Your task to perform on an android device: Open battery settings Image 0: 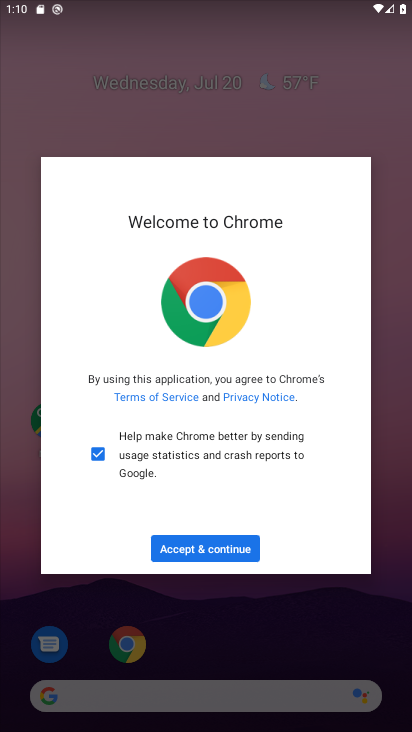
Step 0: press home button
Your task to perform on an android device: Open battery settings Image 1: 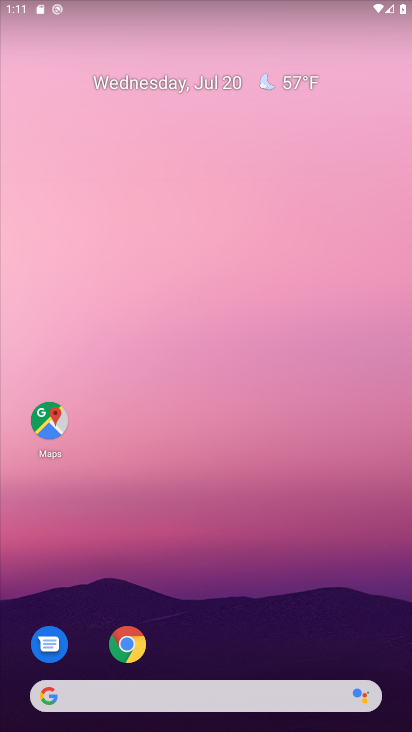
Step 1: drag from (253, 577) to (253, 235)
Your task to perform on an android device: Open battery settings Image 2: 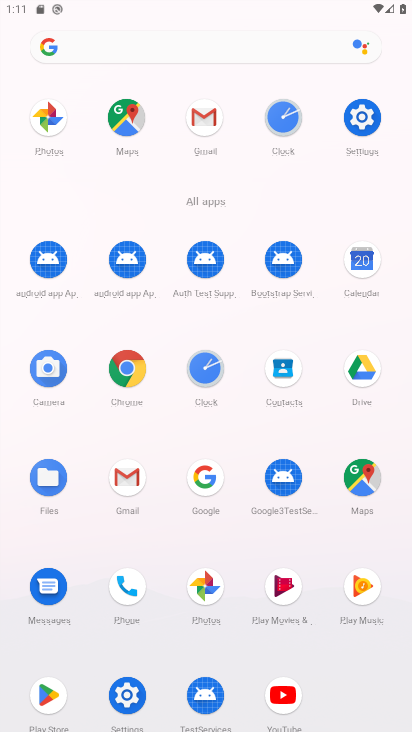
Step 2: click (362, 116)
Your task to perform on an android device: Open battery settings Image 3: 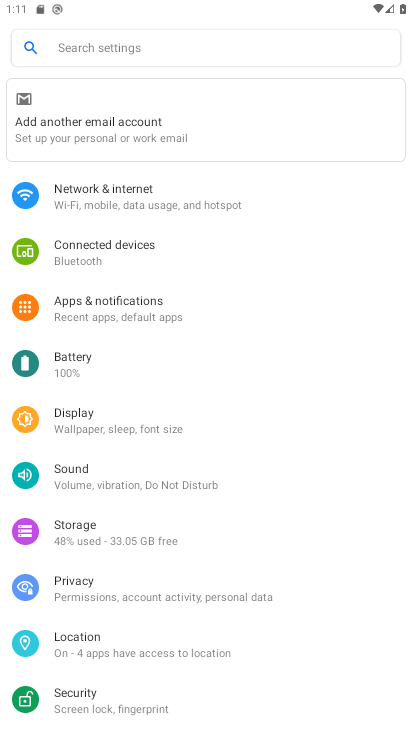
Step 3: click (91, 363)
Your task to perform on an android device: Open battery settings Image 4: 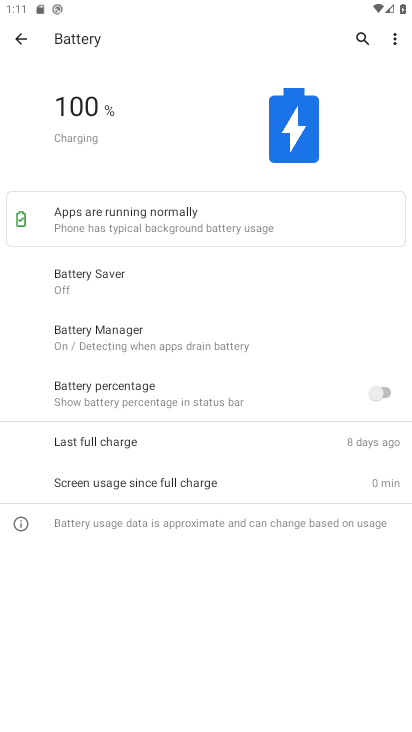
Step 4: task complete